Your task to perform on an android device: Open wifi settings Image 0: 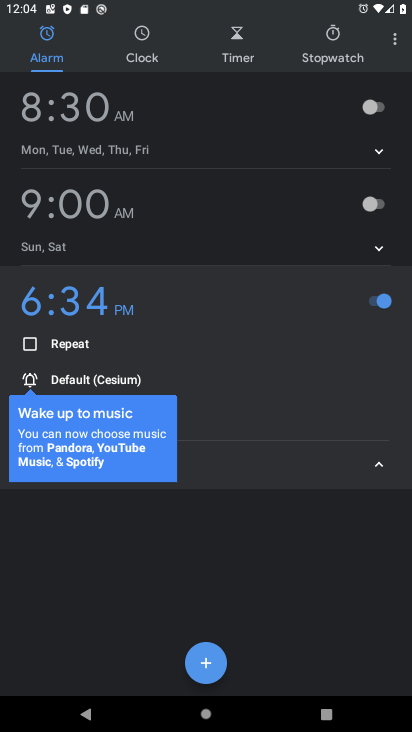
Step 0: press home button
Your task to perform on an android device: Open wifi settings Image 1: 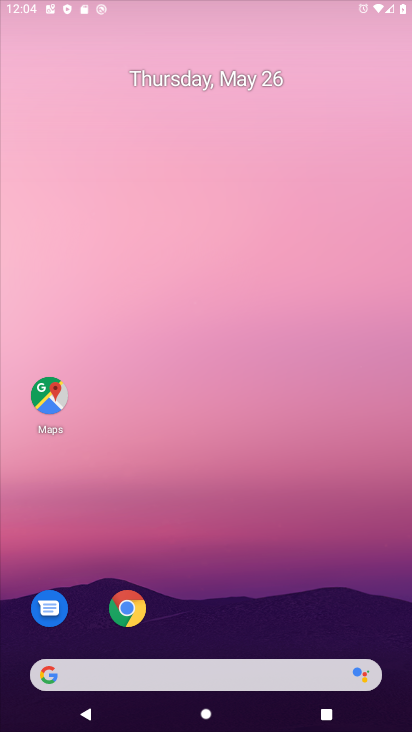
Step 1: drag from (238, 726) to (238, 31)
Your task to perform on an android device: Open wifi settings Image 2: 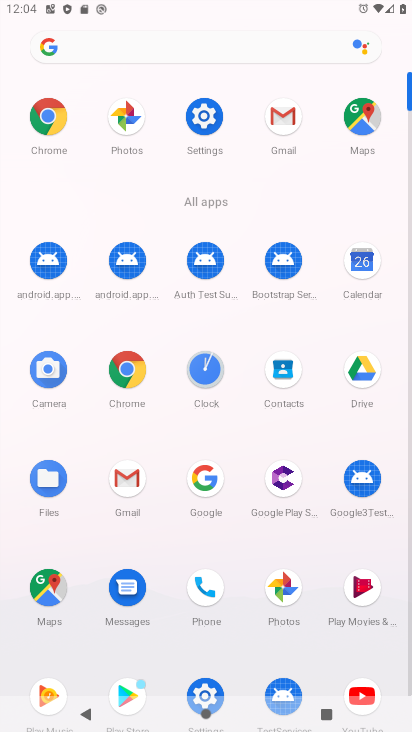
Step 2: click (202, 117)
Your task to perform on an android device: Open wifi settings Image 3: 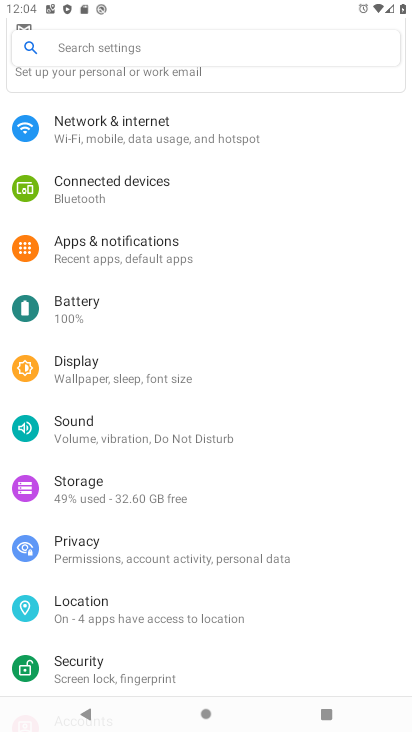
Step 3: click (146, 119)
Your task to perform on an android device: Open wifi settings Image 4: 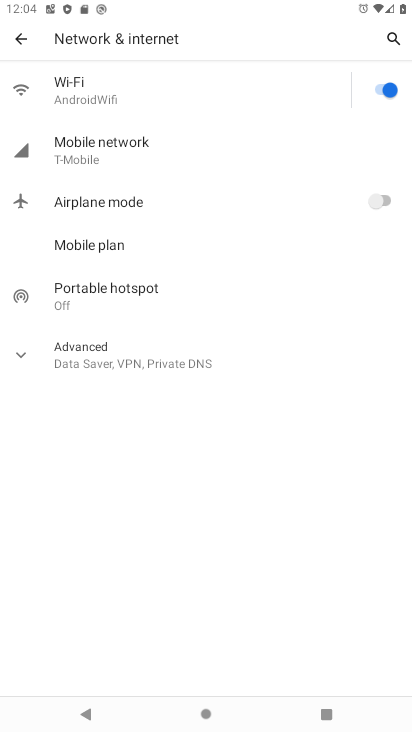
Step 4: click (78, 96)
Your task to perform on an android device: Open wifi settings Image 5: 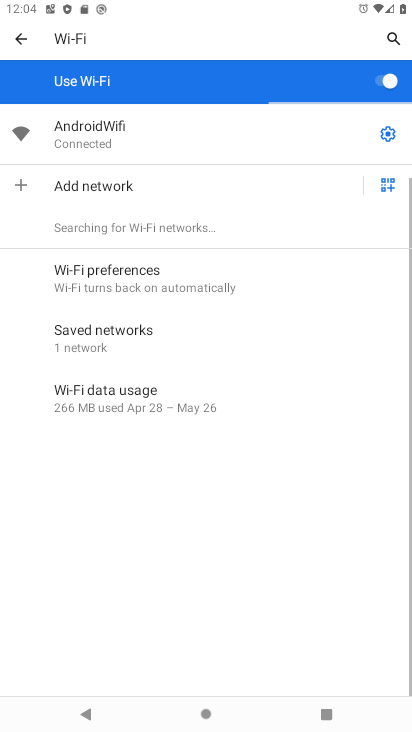
Step 5: task complete